Your task to perform on an android device: Open settings Image 0: 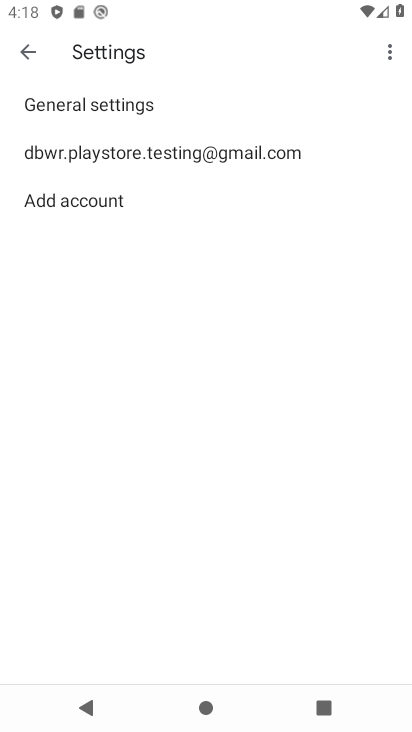
Step 0: press home button
Your task to perform on an android device: Open settings Image 1: 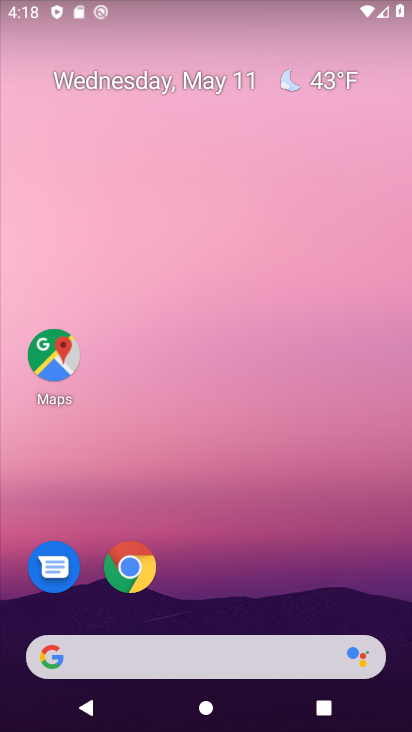
Step 1: drag from (298, 617) to (186, 9)
Your task to perform on an android device: Open settings Image 2: 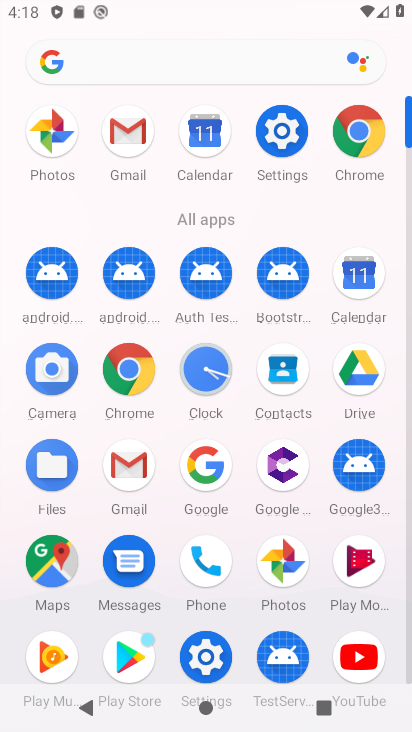
Step 2: click (282, 139)
Your task to perform on an android device: Open settings Image 3: 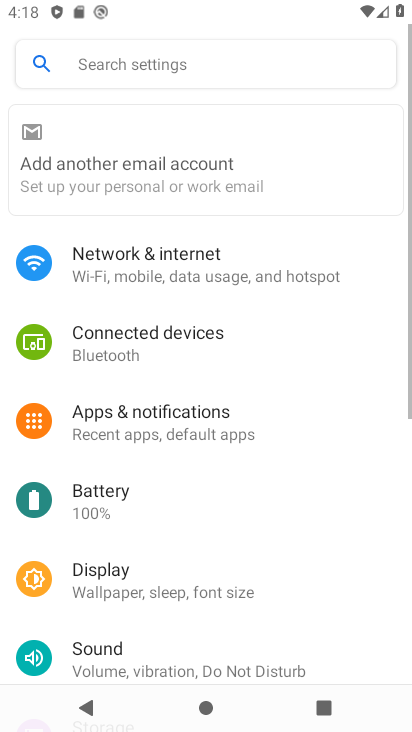
Step 3: task complete